Your task to perform on an android device: Open Google Chrome and open the bookmarks view Image 0: 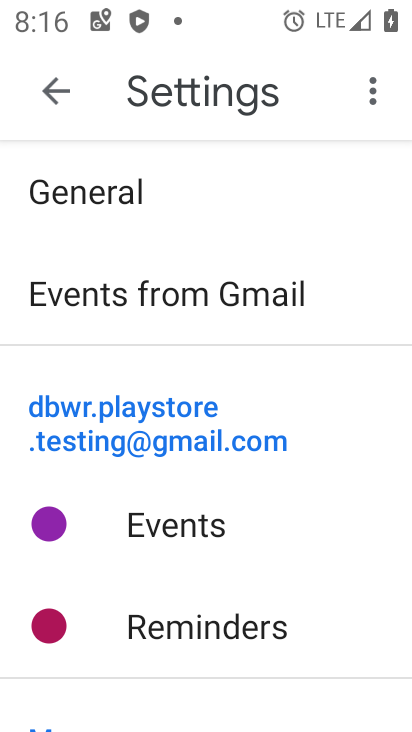
Step 0: press home button
Your task to perform on an android device: Open Google Chrome and open the bookmarks view Image 1: 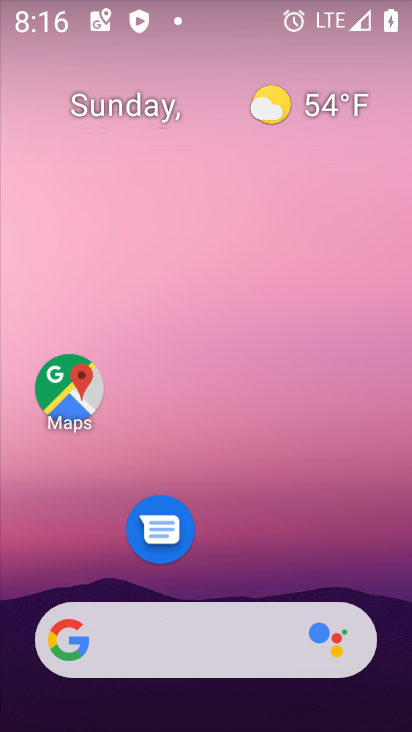
Step 1: drag from (215, 545) to (277, 46)
Your task to perform on an android device: Open Google Chrome and open the bookmarks view Image 2: 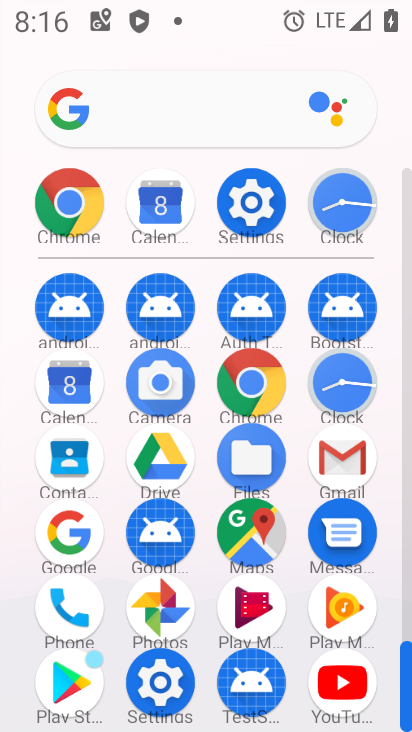
Step 2: click (60, 218)
Your task to perform on an android device: Open Google Chrome and open the bookmarks view Image 3: 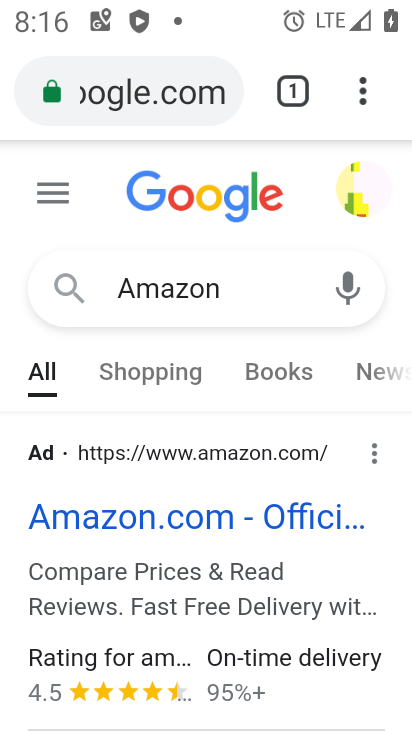
Step 3: click (362, 90)
Your task to perform on an android device: Open Google Chrome and open the bookmarks view Image 4: 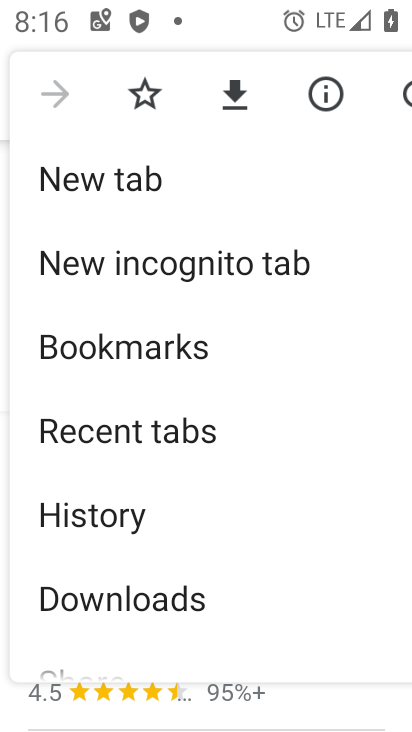
Step 4: click (210, 175)
Your task to perform on an android device: Open Google Chrome and open the bookmarks view Image 5: 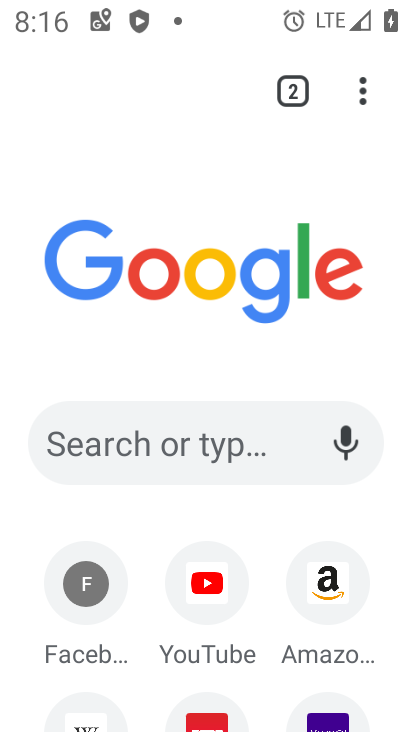
Step 5: task complete